Your task to perform on an android device: add a label to a message in the gmail app Image 0: 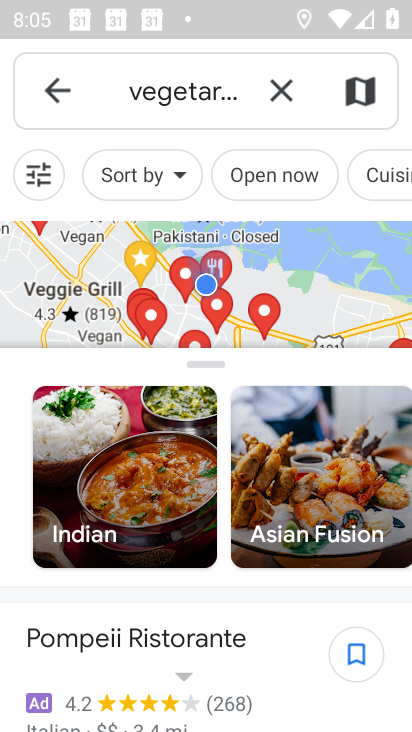
Step 0: press home button
Your task to perform on an android device: add a label to a message in the gmail app Image 1: 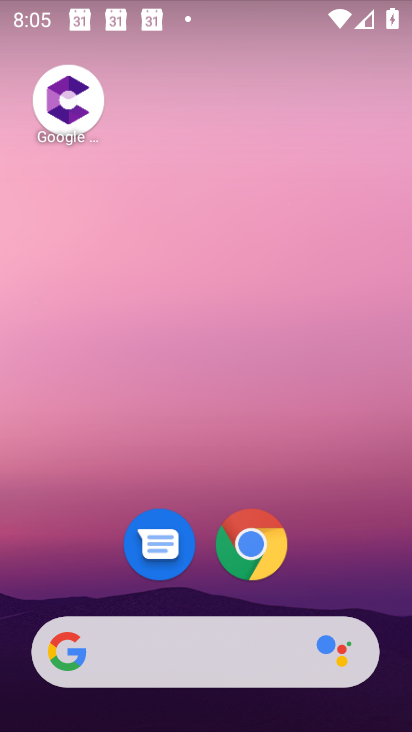
Step 1: drag from (206, 599) to (215, 200)
Your task to perform on an android device: add a label to a message in the gmail app Image 2: 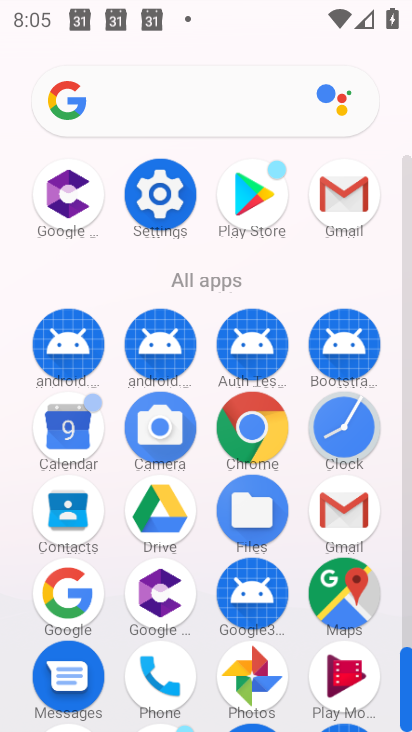
Step 2: click (316, 214)
Your task to perform on an android device: add a label to a message in the gmail app Image 3: 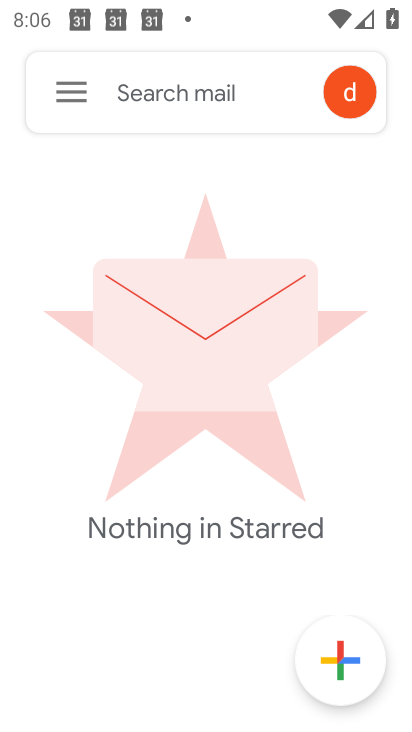
Step 3: click (49, 101)
Your task to perform on an android device: add a label to a message in the gmail app Image 4: 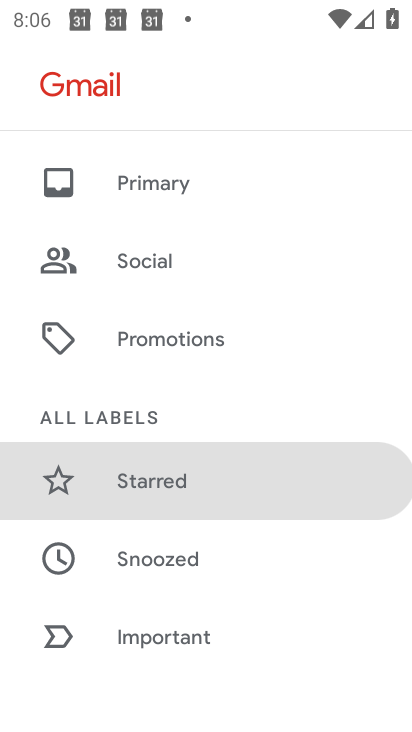
Step 4: drag from (187, 239) to (321, 166)
Your task to perform on an android device: add a label to a message in the gmail app Image 5: 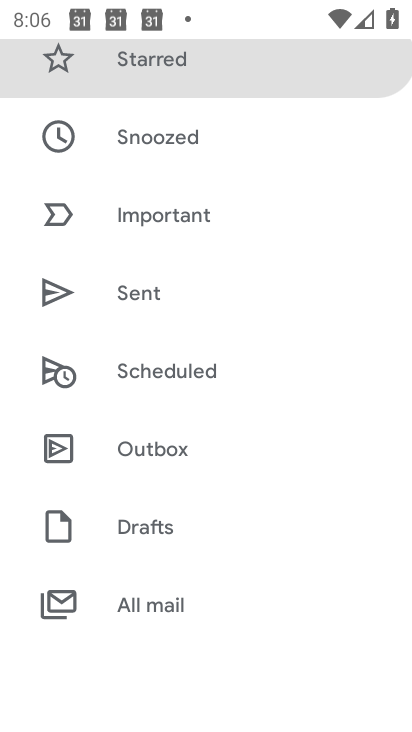
Step 5: click (134, 612)
Your task to perform on an android device: add a label to a message in the gmail app Image 6: 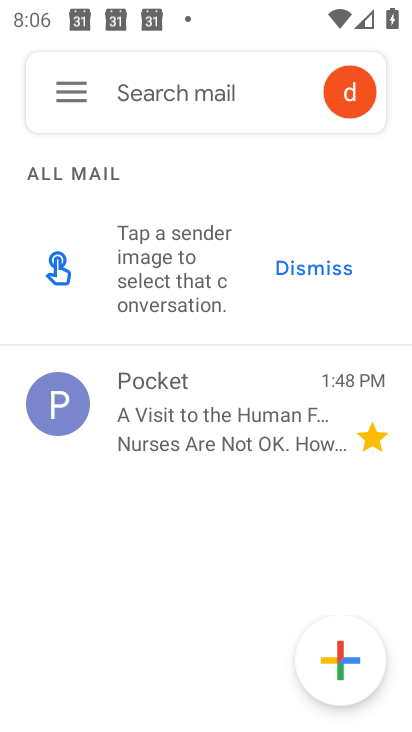
Step 6: click (164, 415)
Your task to perform on an android device: add a label to a message in the gmail app Image 7: 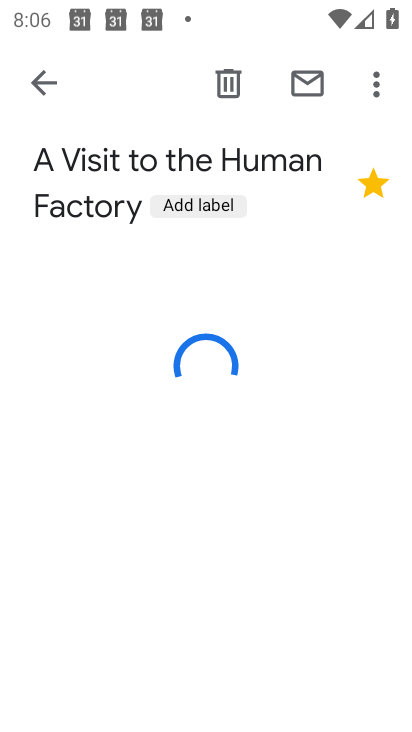
Step 7: click (215, 202)
Your task to perform on an android device: add a label to a message in the gmail app Image 8: 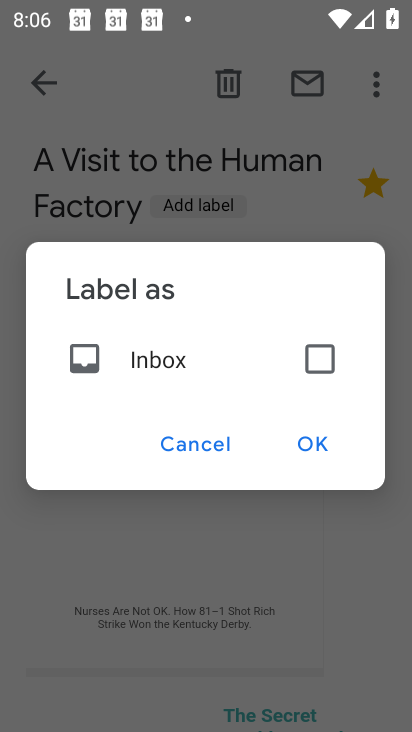
Step 8: click (321, 365)
Your task to perform on an android device: add a label to a message in the gmail app Image 9: 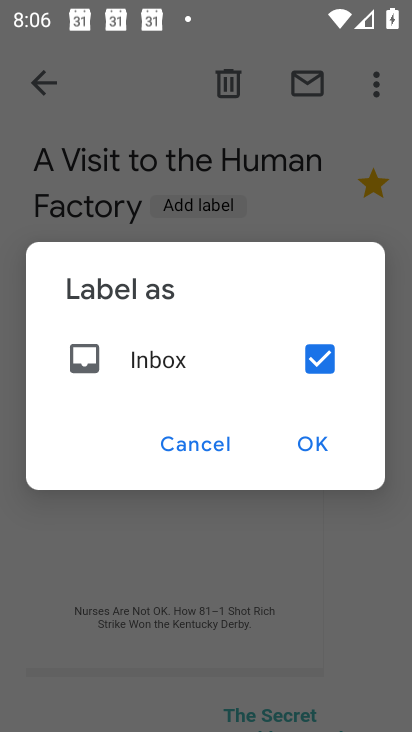
Step 9: click (307, 437)
Your task to perform on an android device: add a label to a message in the gmail app Image 10: 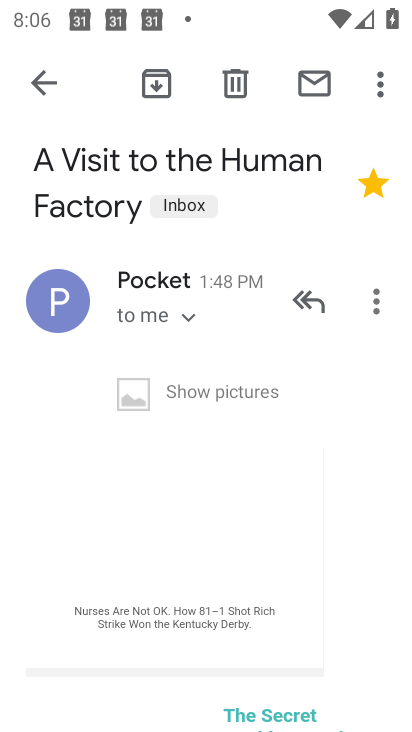
Step 10: task complete